Your task to perform on an android device: How much does a 3 bedroom apartment rent for in Seattle? Image 0: 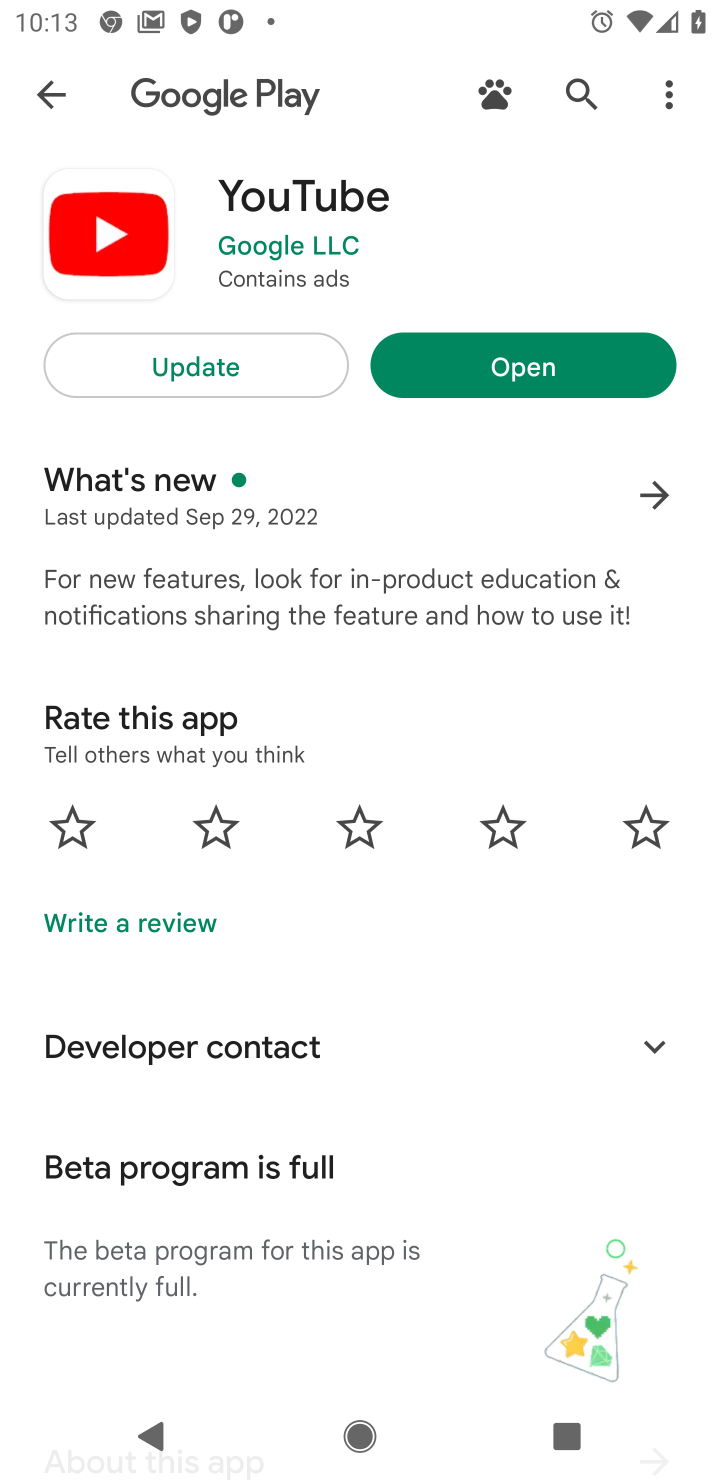
Step 0: press home button
Your task to perform on an android device: How much does a 3 bedroom apartment rent for in Seattle? Image 1: 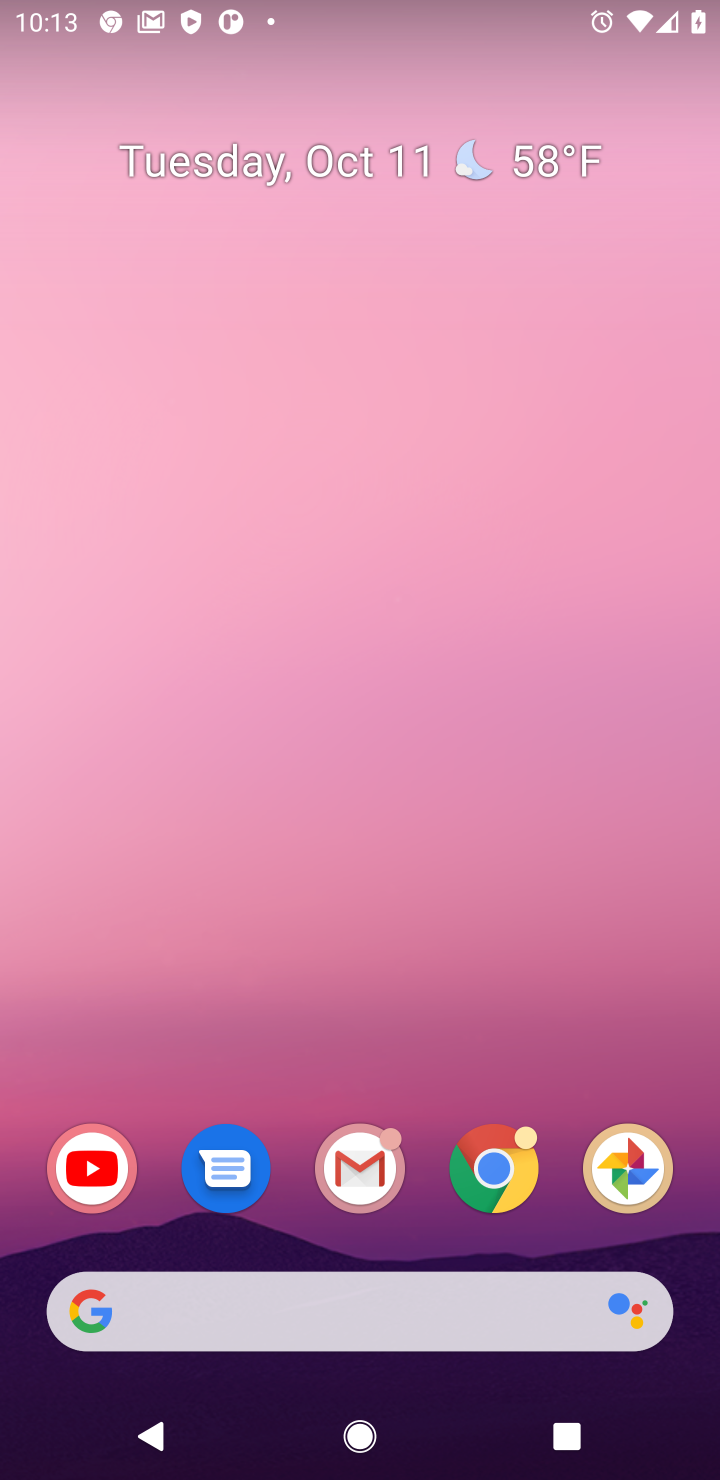
Step 1: click (498, 1163)
Your task to perform on an android device: How much does a 3 bedroom apartment rent for in Seattle? Image 2: 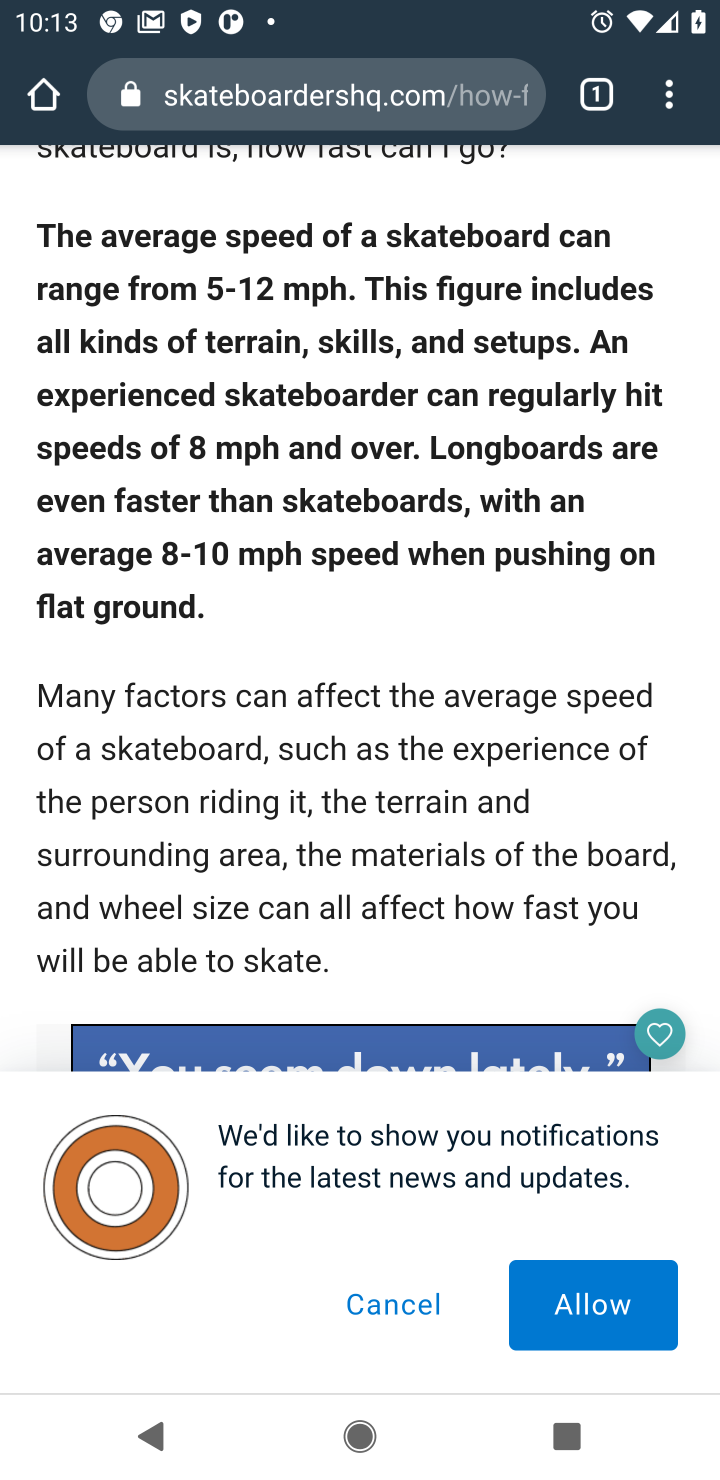
Step 2: click (308, 88)
Your task to perform on an android device: How much does a 3 bedroom apartment rent for in Seattle? Image 3: 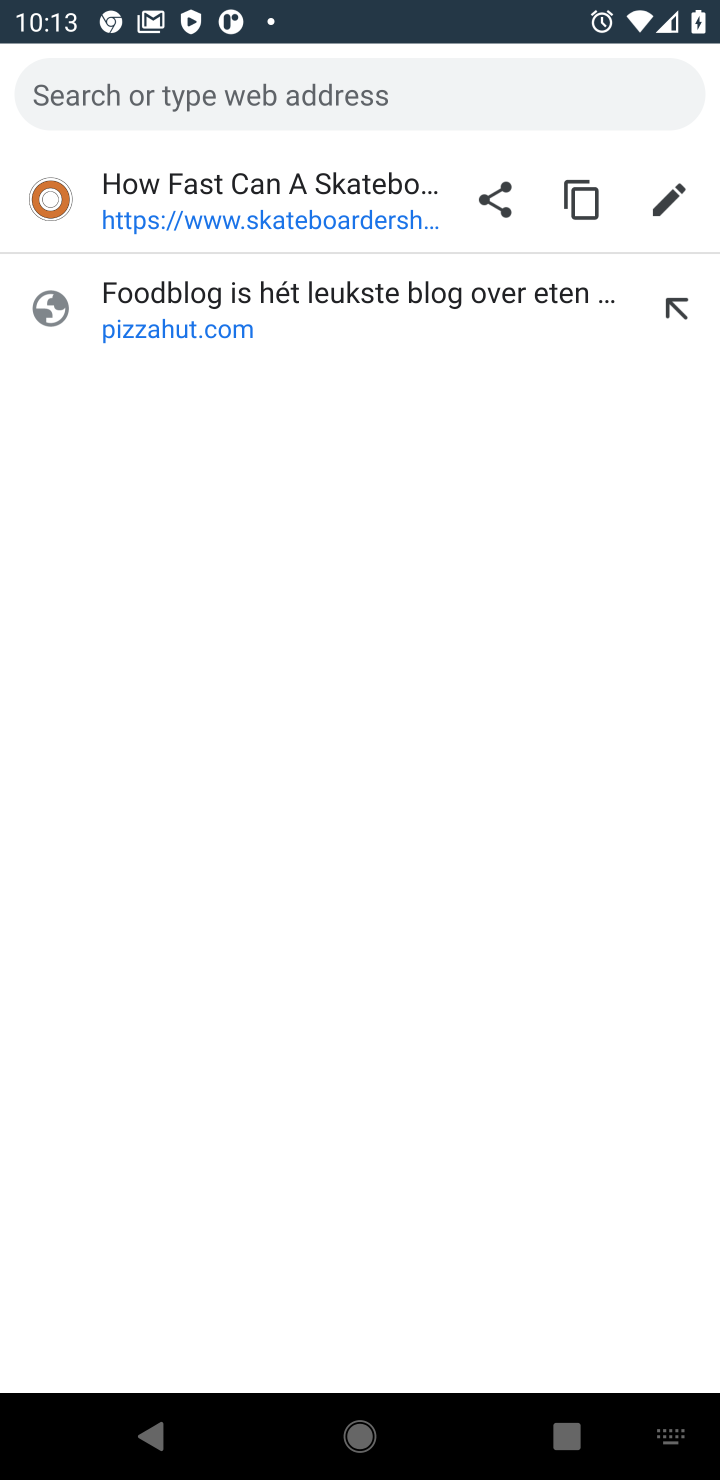
Step 3: type "3 bedroom apartment rent for in seattle"
Your task to perform on an android device: How much does a 3 bedroom apartment rent for in Seattle? Image 4: 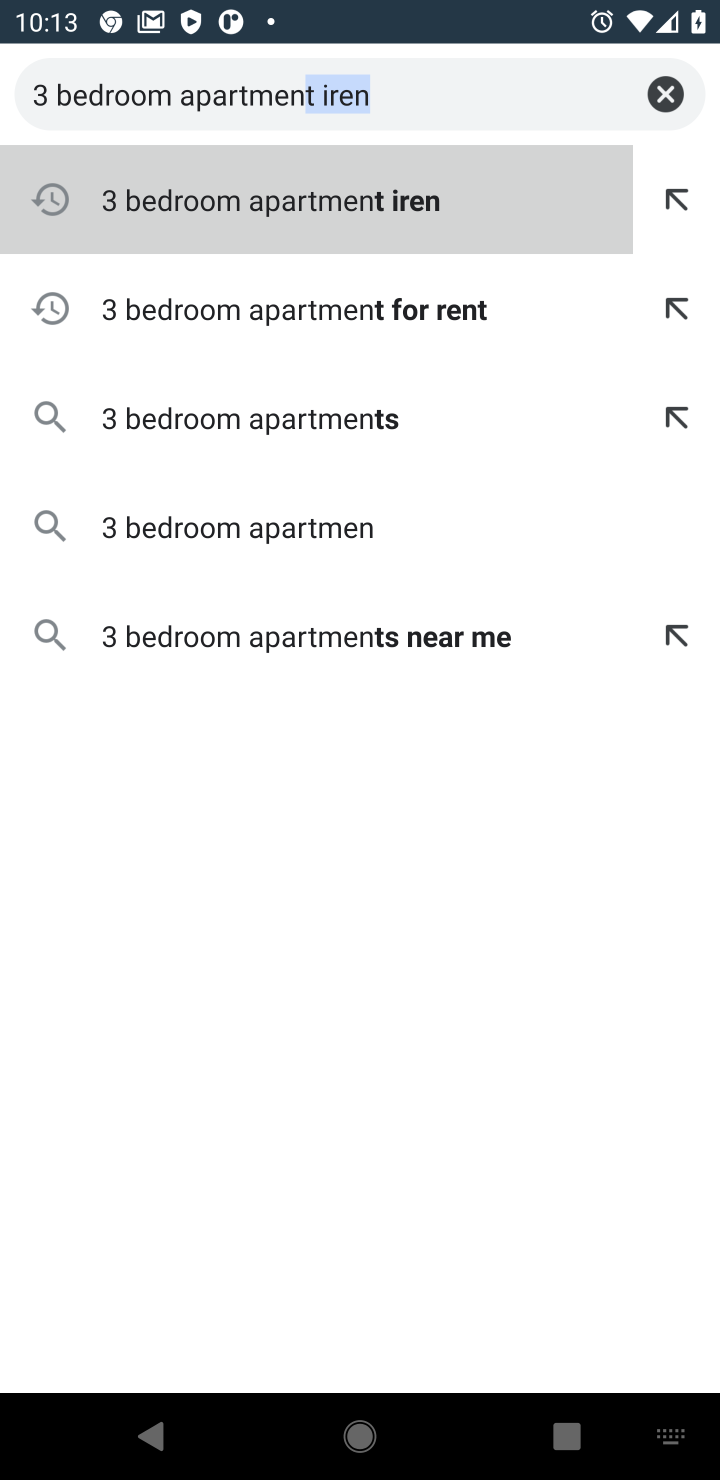
Step 4: type ""
Your task to perform on an android device: How much does a 3 bedroom apartment rent for in Seattle? Image 5: 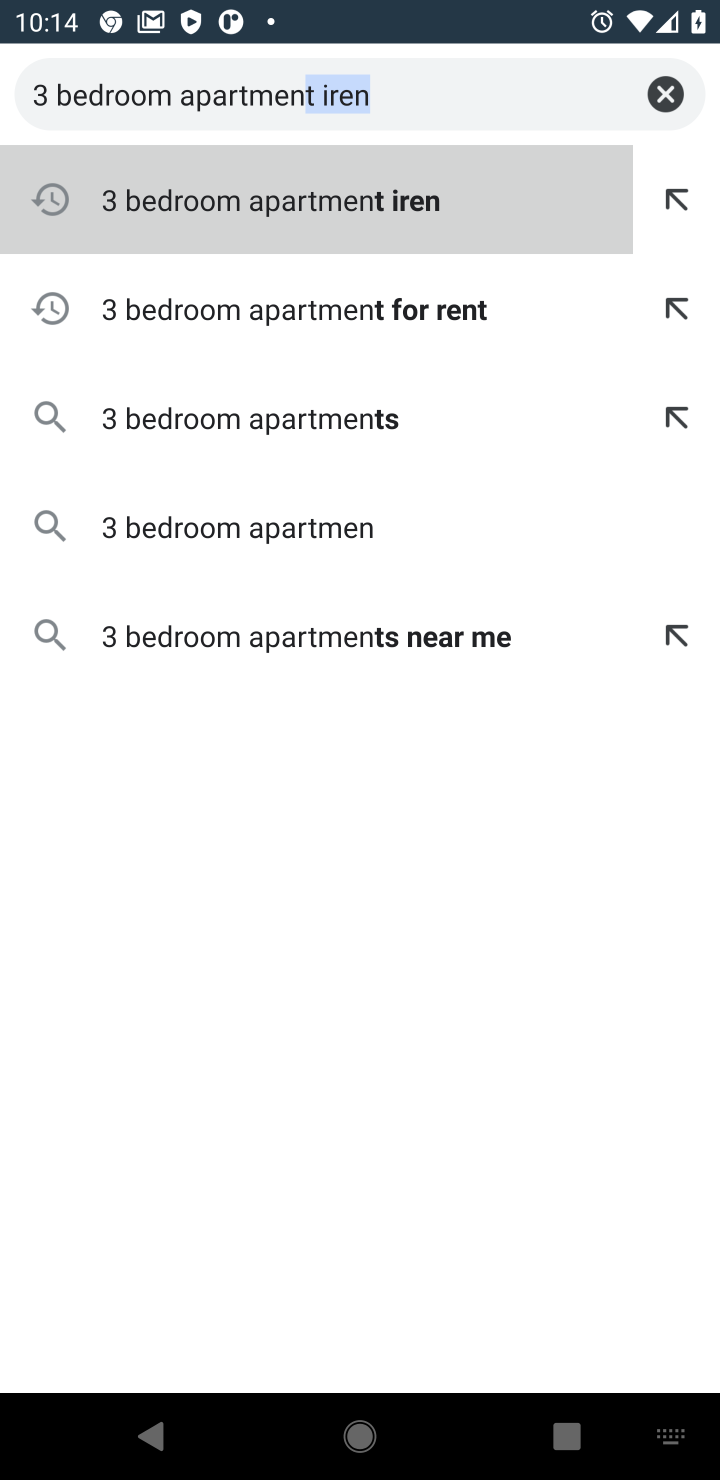
Step 5: click (338, 630)
Your task to perform on an android device: How much does a 3 bedroom apartment rent for in Seattle? Image 6: 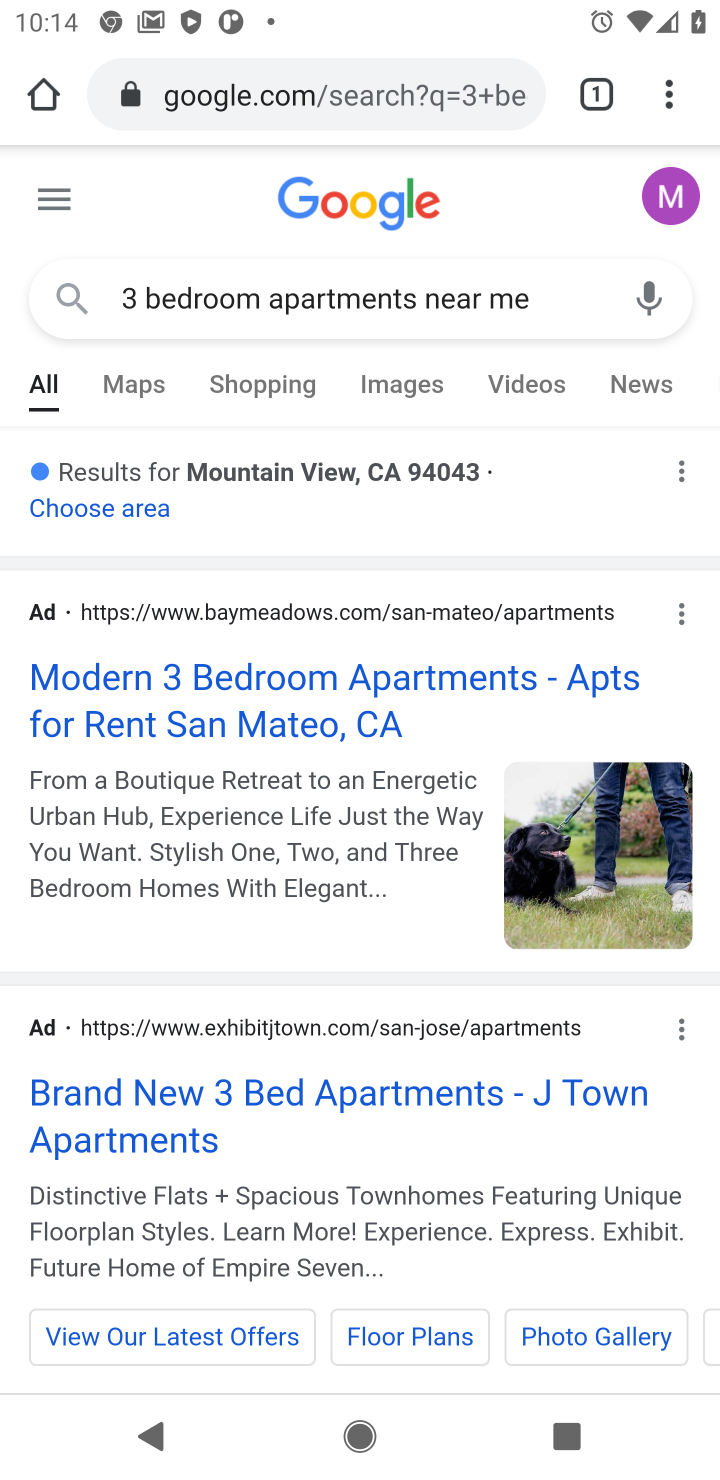
Step 6: click (527, 303)
Your task to perform on an android device: How much does a 3 bedroom apartment rent for in Seattle? Image 7: 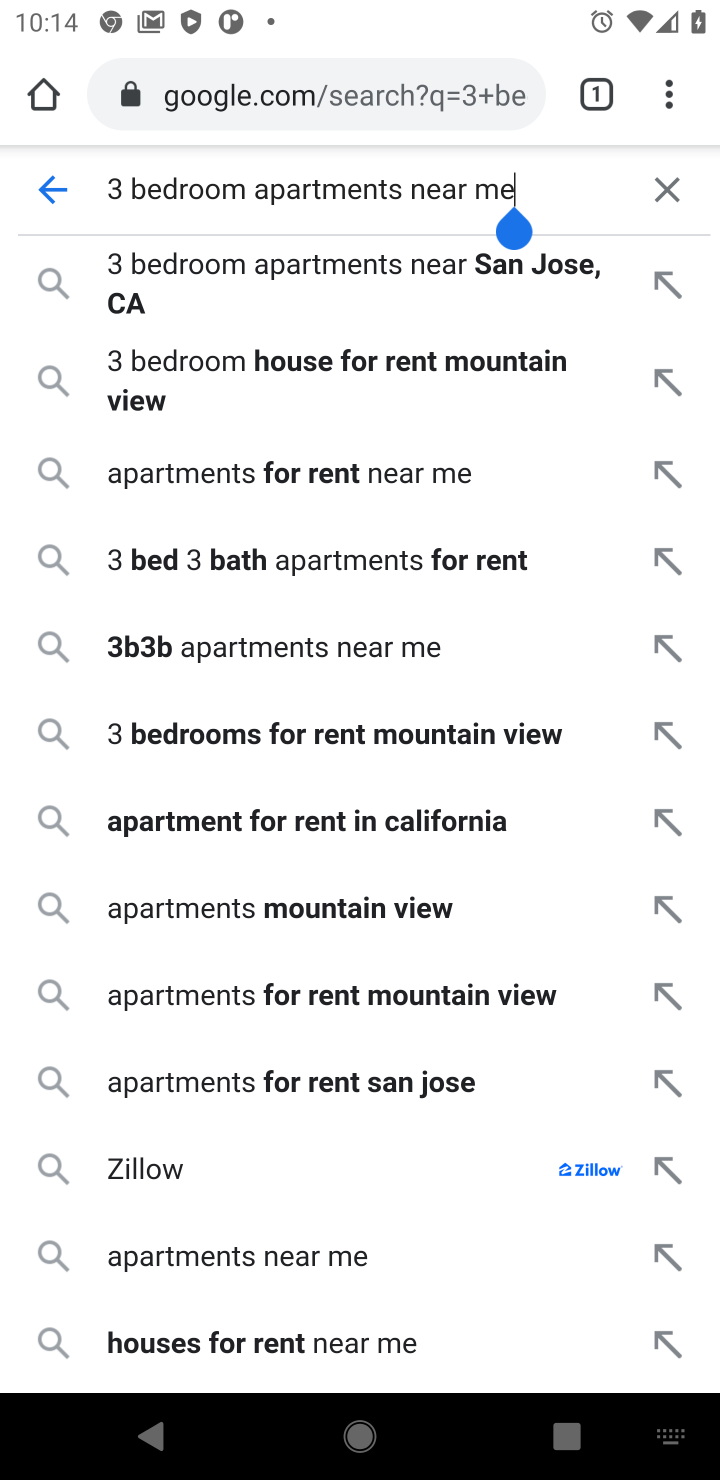
Step 7: click (656, 189)
Your task to perform on an android device: How much does a 3 bedroom apartment rent for in Seattle? Image 8: 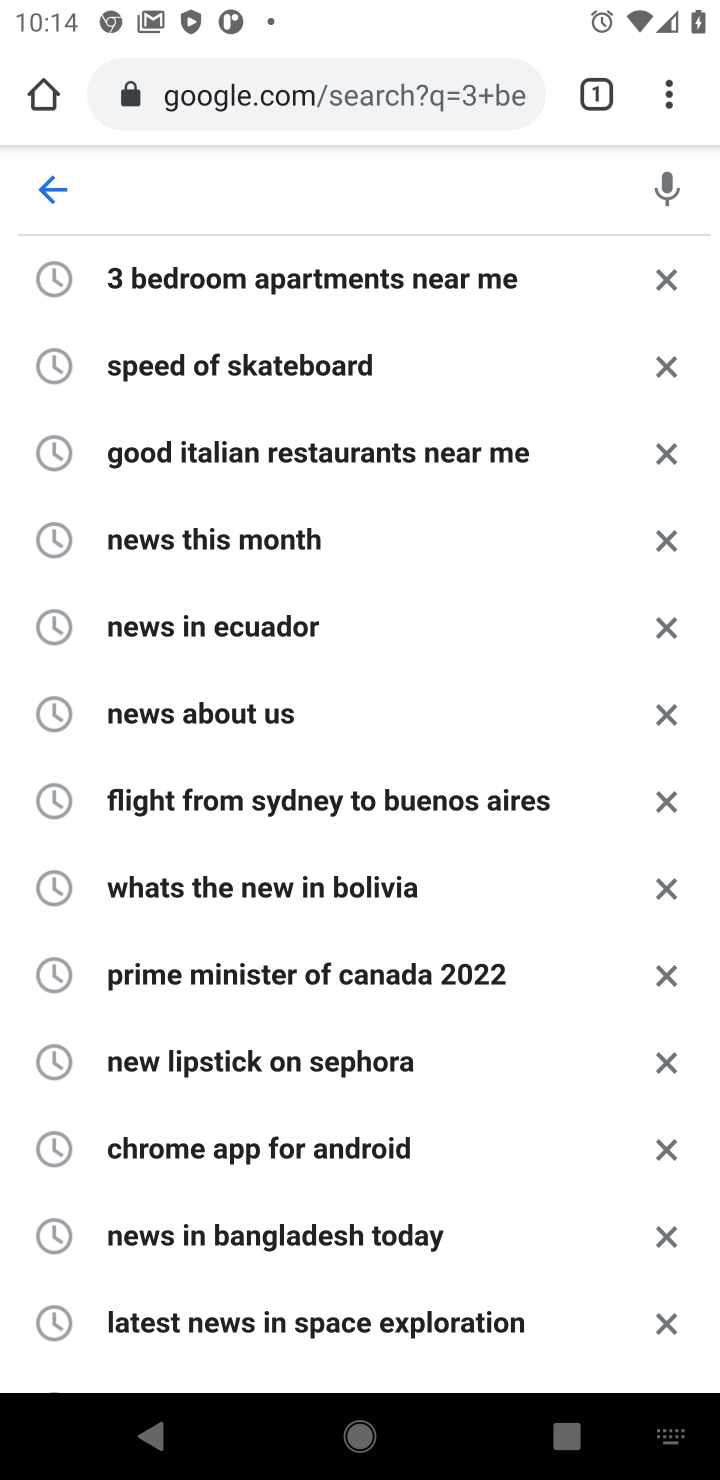
Step 8: type "3 bed room apartmnet rent in seatle"
Your task to perform on an android device: How much does a 3 bedroom apartment rent for in Seattle? Image 9: 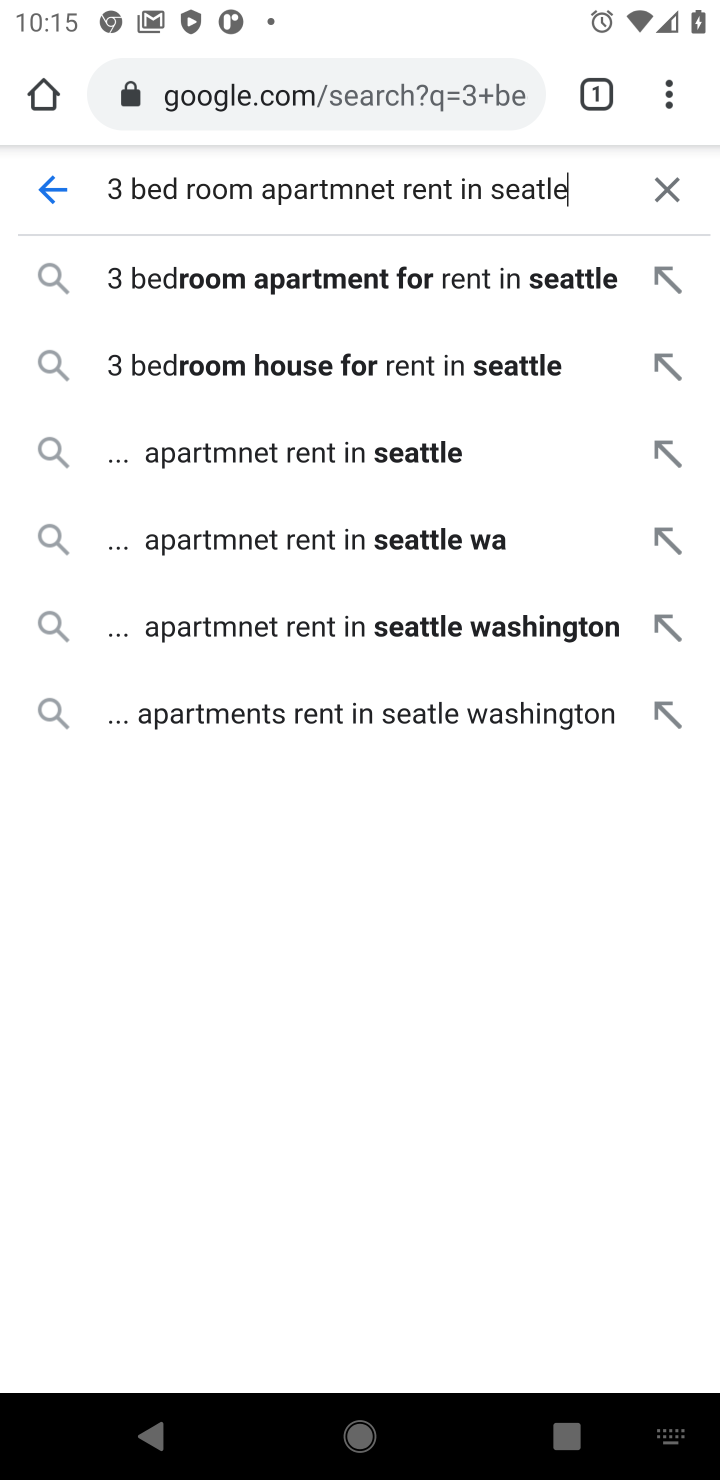
Step 9: click (343, 268)
Your task to perform on an android device: How much does a 3 bedroom apartment rent for in Seattle? Image 10: 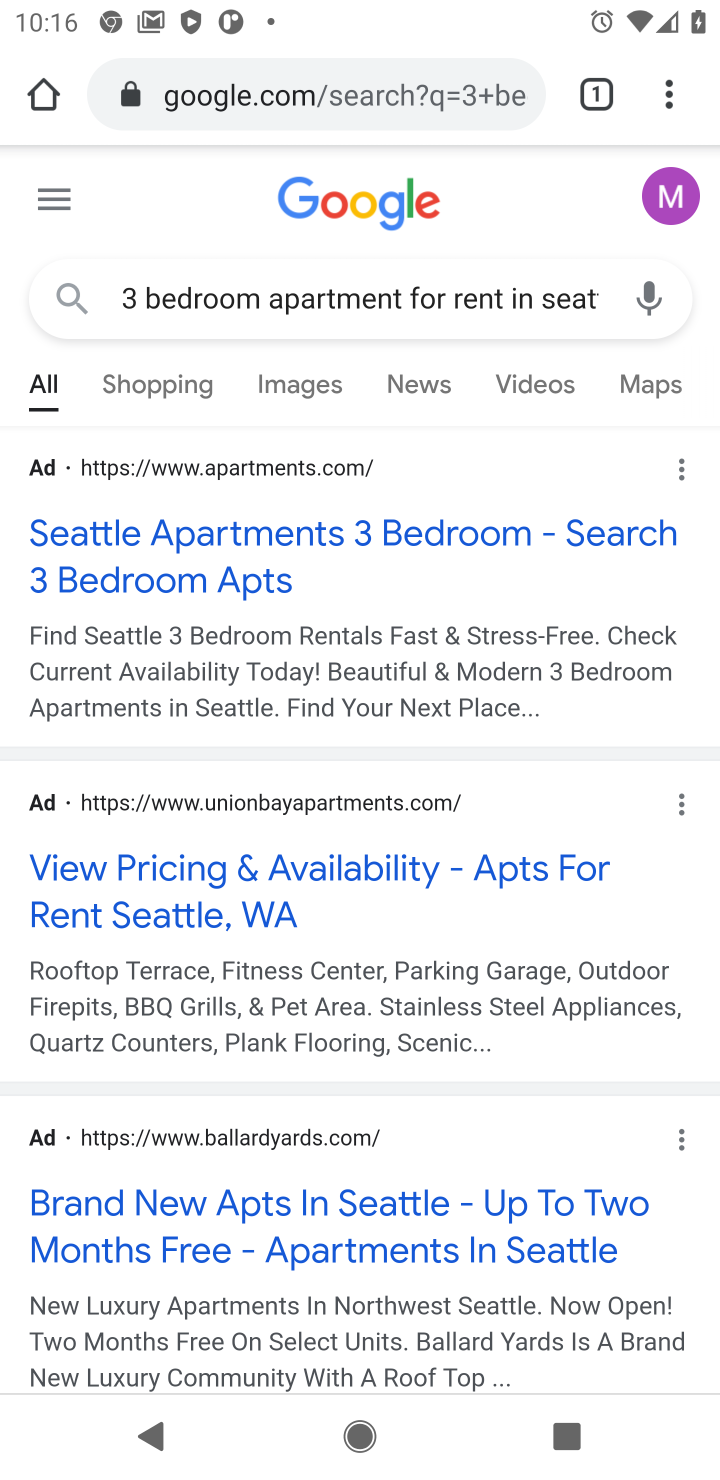
Step 10: click (214, 539)
Your task to perform on an android device: How much does a 3 bedroom apartment rent for in Seattle? Image 11: 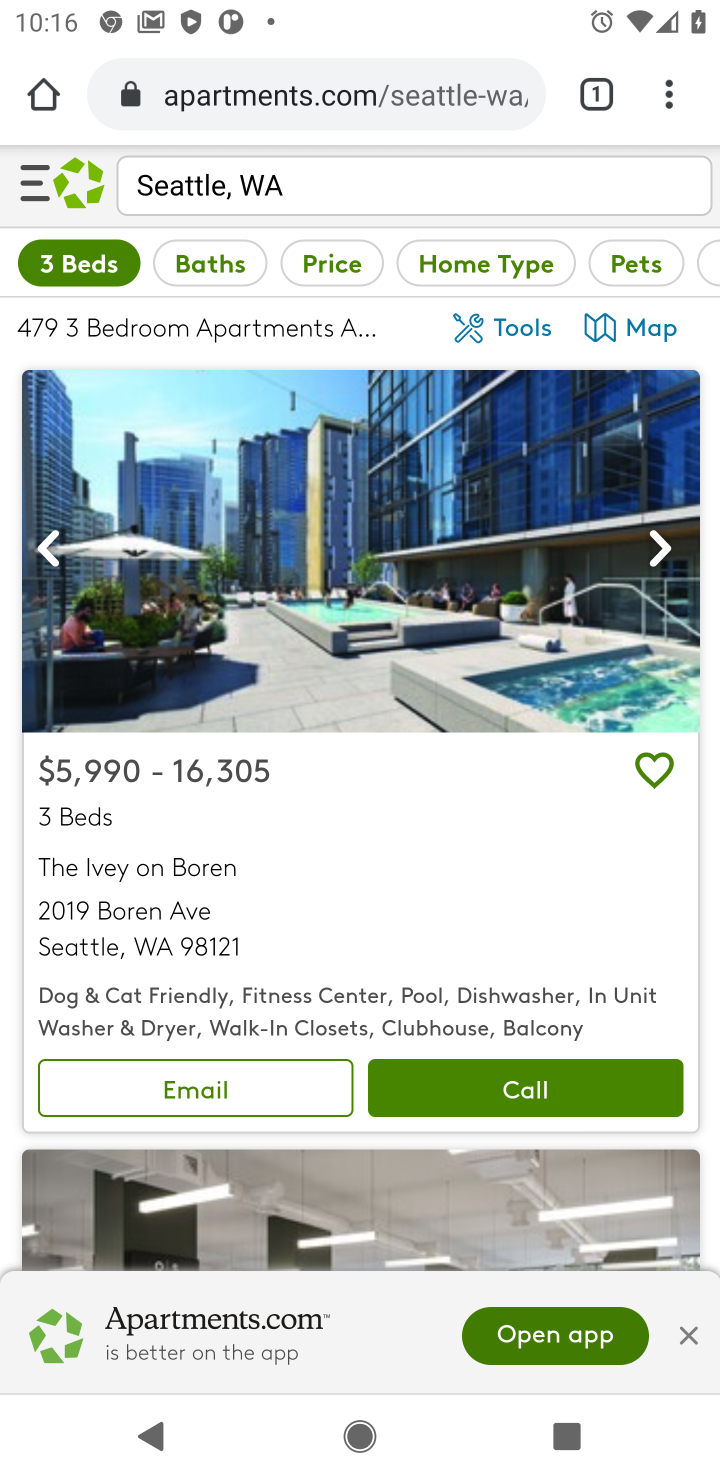
Step 11: drag from (226, 1039) to (296, 589)
Your task to perform on an android device: How much does a 3 bedroom apartment rent for in Seattle? Image 12: 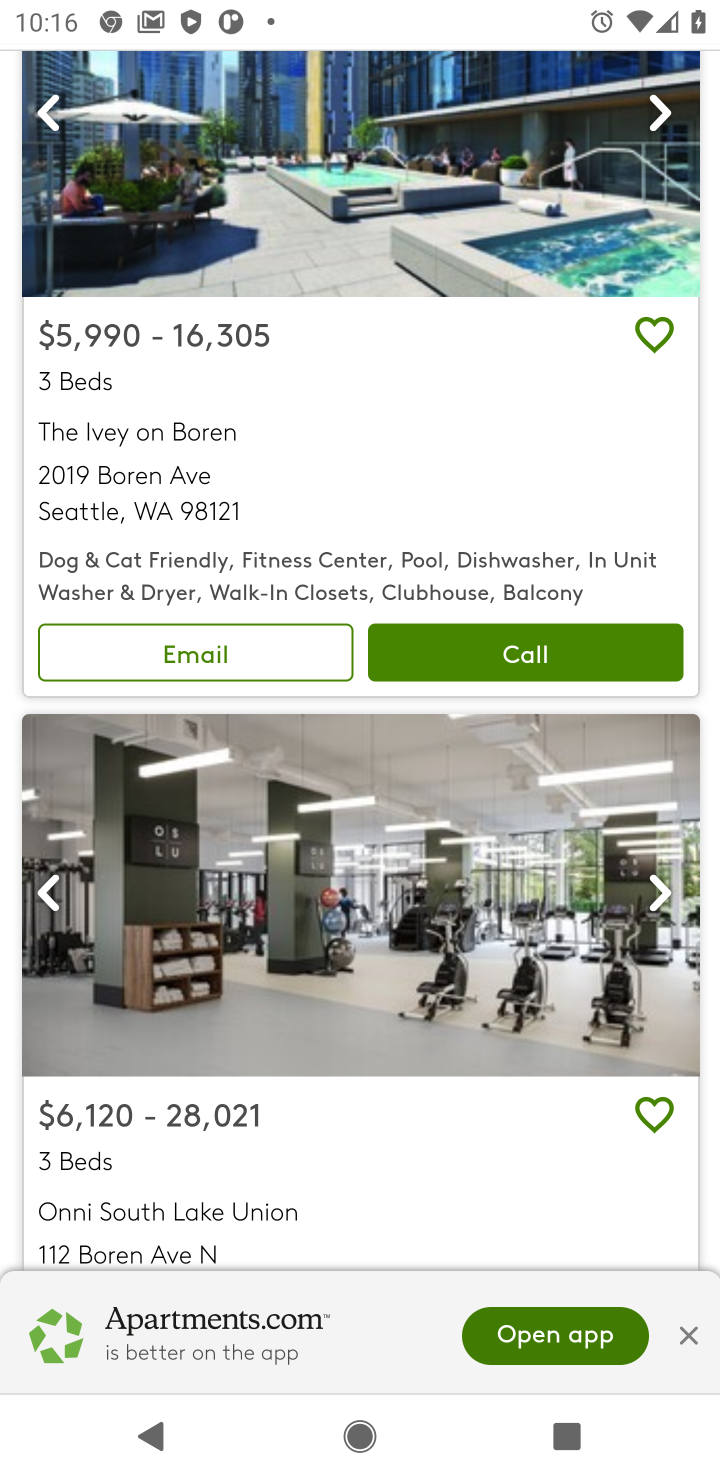
Step 12: drag from (424, 537) to (468, 391)
Your task to perform on an android device: How much does a 3 bedroom apartment rent for in Seattle? Image 13: 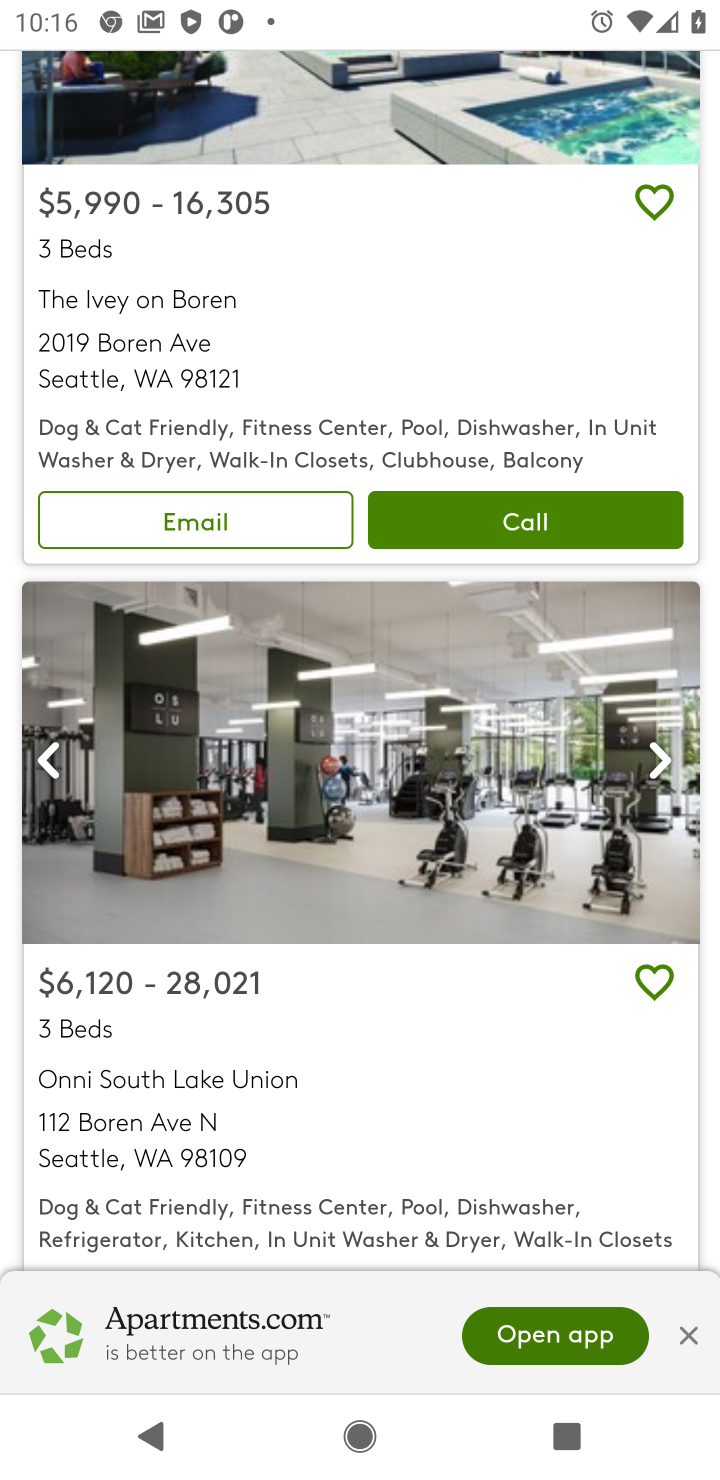
Step 13: click (313, 562)
Your task to perform on an android device: How much does a 3 bedroom apartment rent for in Seattle? Image 14: 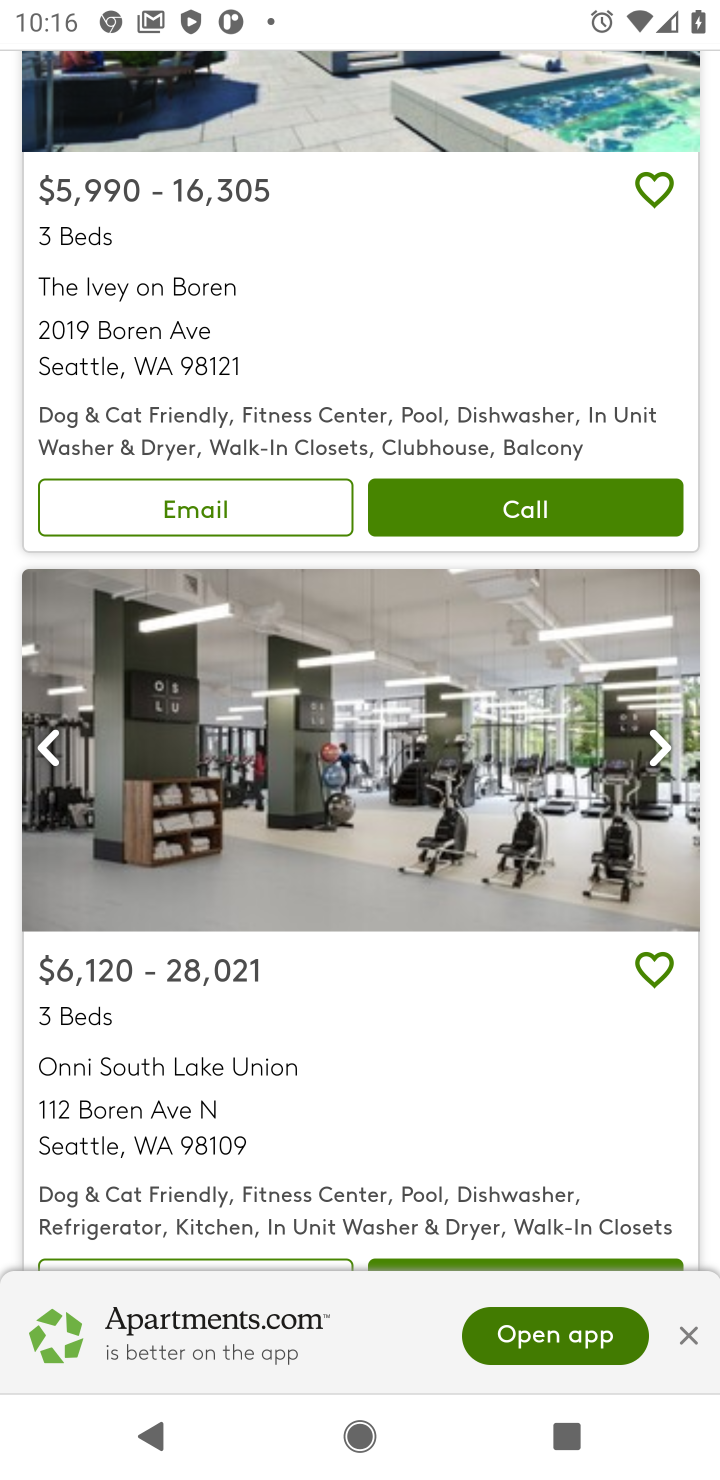
Step 14: task complete